Your task to perform on an android device: move an email to a new category in the gmail app Image 0: 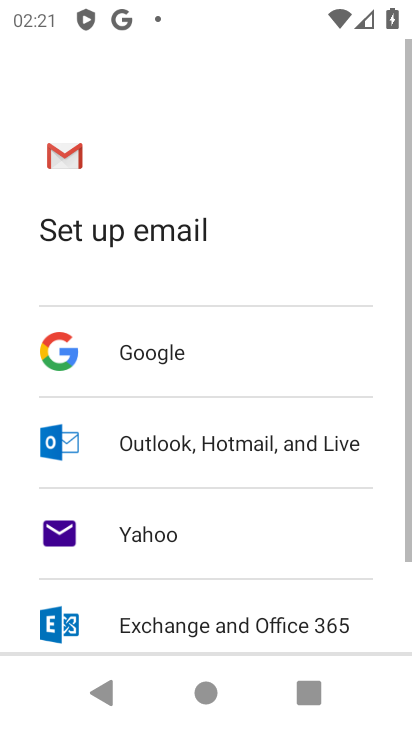
Step 0: press home button
Your task to perform on an android device: move an email to a new category in the gmail app Image 1: 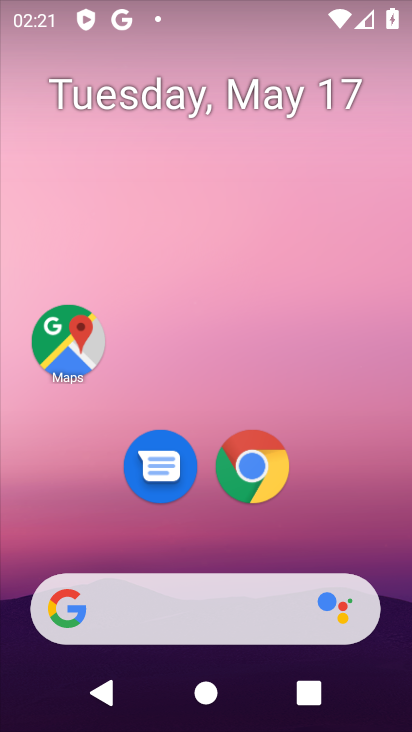
Step 1: drag from (321, 513) to (322, 132)
Your task to perform on an android device: move an email to a new category in the gmail app Image 2: 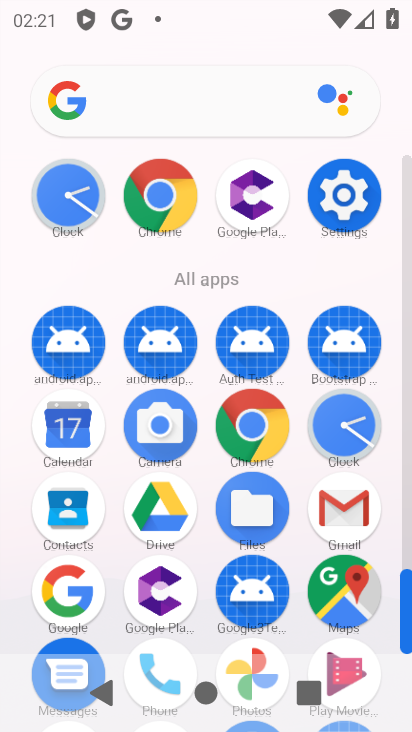
Step 2: click (347, 507)
Your task to perform on an android device: move an email to a new category in the gmail app Image 3: 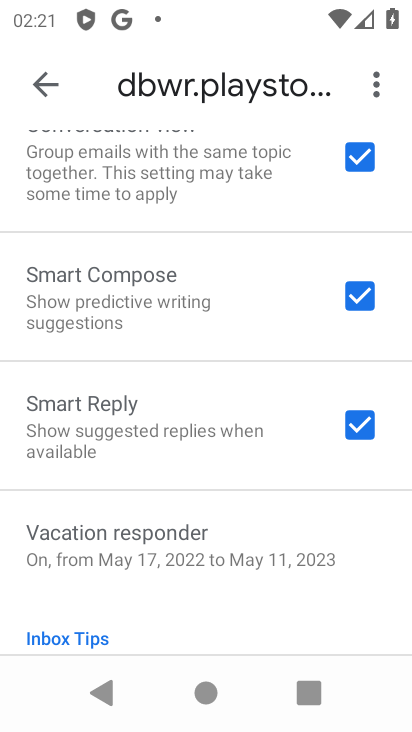
Step 3: click (42, 87)
Your task to perform on an android device: move an email to a new category in the gmail app Image 4: 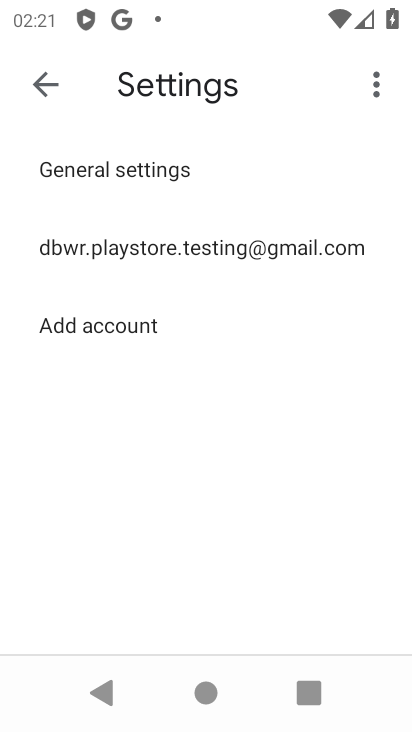
Step 4: click (43, 87)
Your task to perform on an android device: move an email to a new category in the gmail app Image 5: 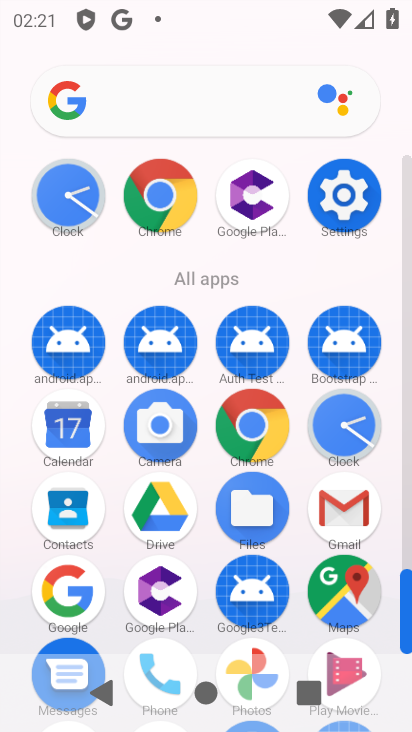
Step 5: click (328, 512)
Your task to perform on an android device: move an email to a new category in the gmail app Image 6: 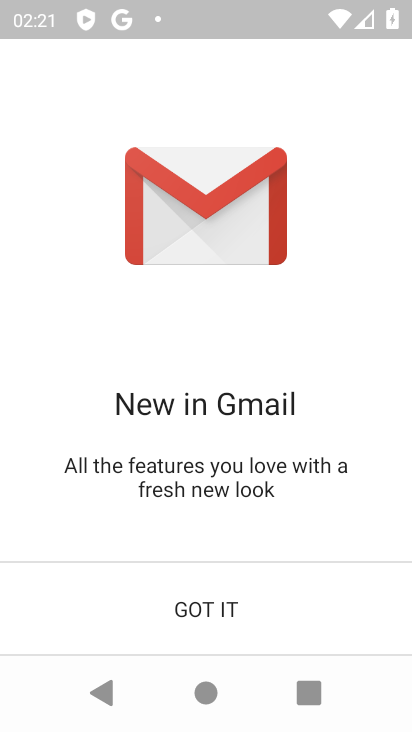
Step 6: click (195, 597)
Your task to perform on an android device: move an email to a new category in the gmail app Image 7: 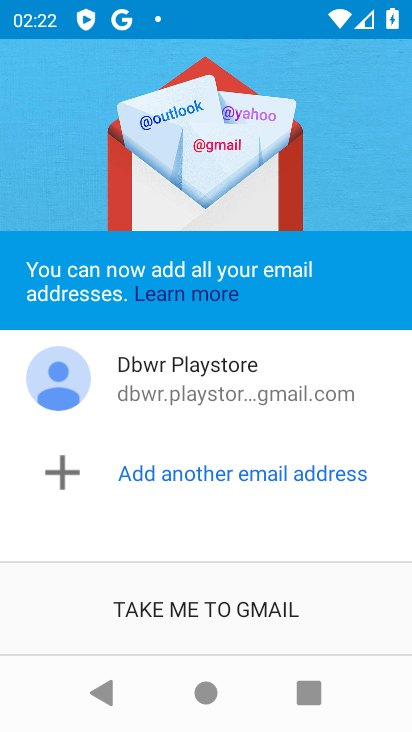
Step 7: click (203, 591)
Your task to perform on an android device: move an email to a new category in the gmail app Image 8: 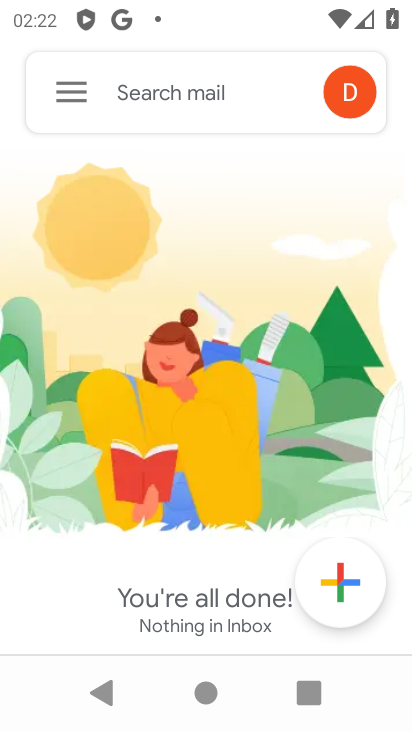
Step 8: click (79, 75)
Your task to perform on an android device: move an email to a new category in the gmail app Image 9: 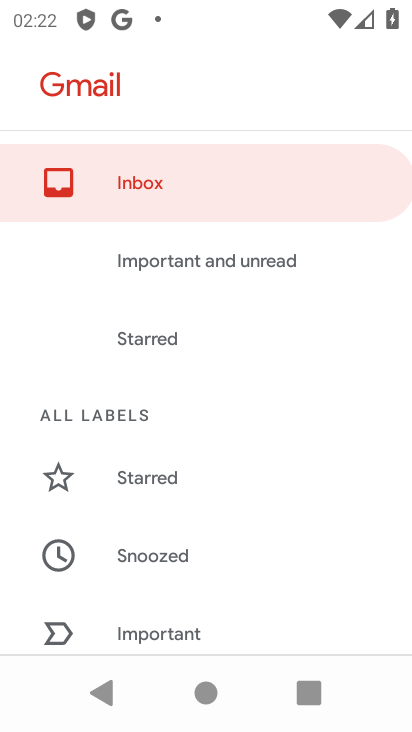
Step 9: drag from (190, 658) to (254, 222)
Your task to perform on an android device: move an email to a new category in the gmail app Image 10: 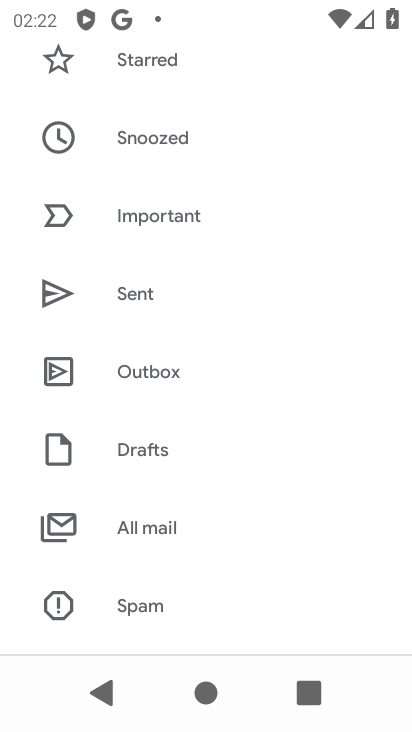
Step 10: click (158, 522)
Your task to perform on an android device: move an email to a new category in the gmail app Image 11: 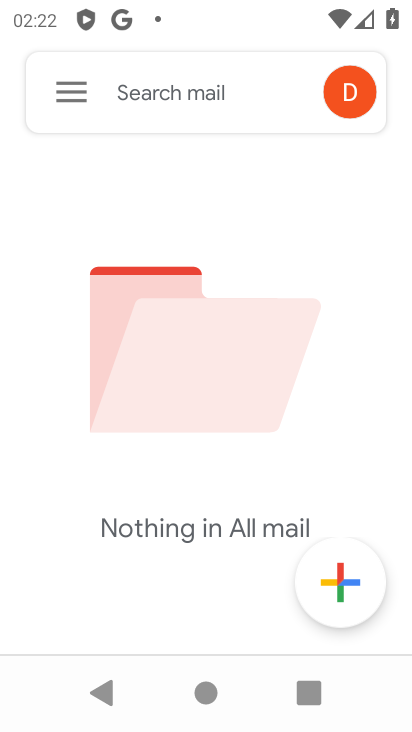
Step 11: task complete